Your task to perform on an android device: toggle location history Image 0: 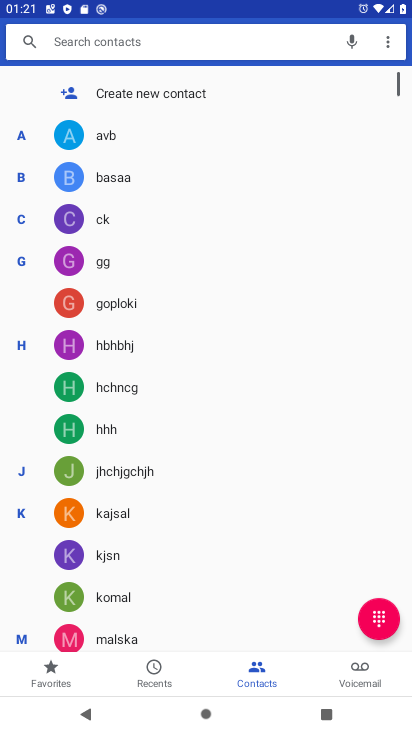
Step 0: press home button
Your task to perform on an android device: toggle location history Image 1: 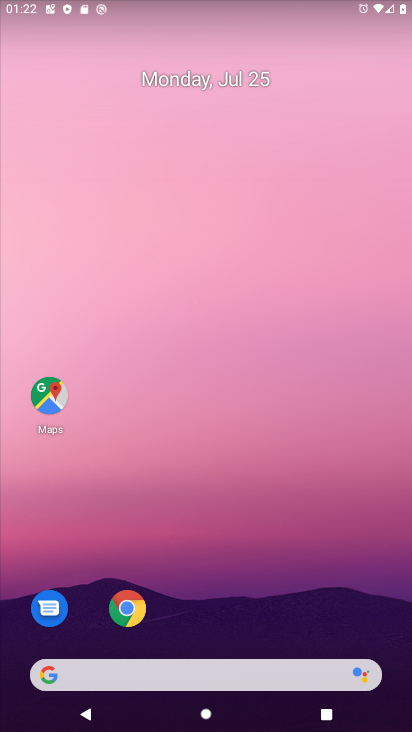
Step 1: drag from (221, 629) to (179, 9)
Your task to perform on an android device: toggle location history Image 2: 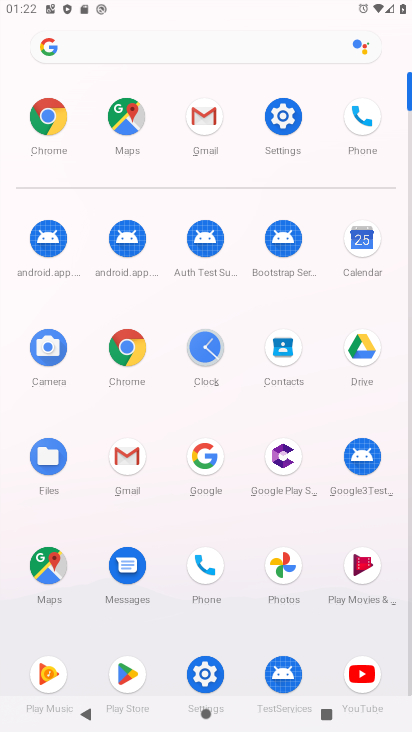
Step 2: click (264, 114)
Your task to perform on an android device: toggle location history Image 3: 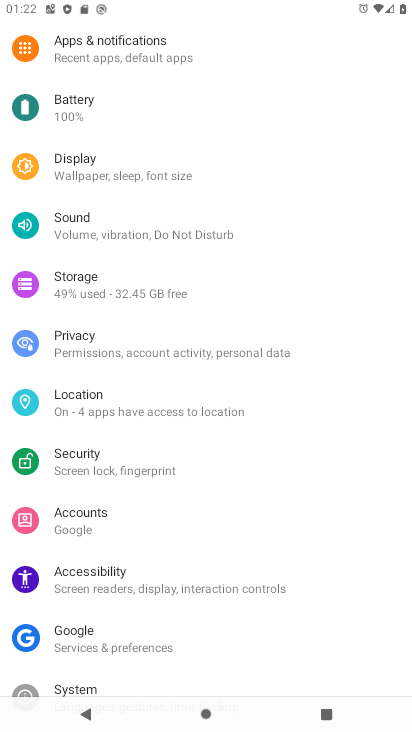
Step 3: click (92, 402)
Your task to perform on an android device: toggle location history Image 4: 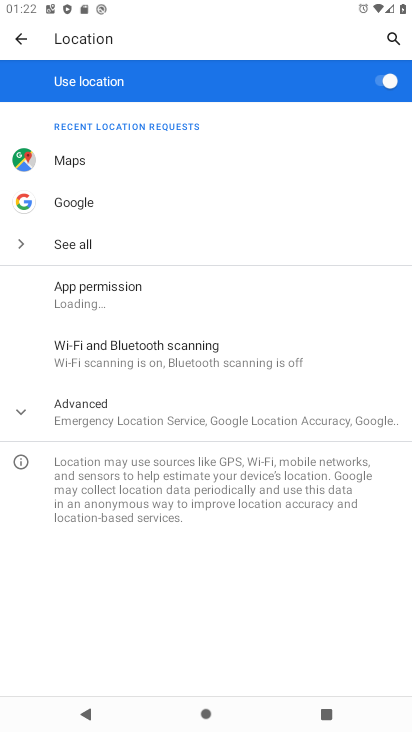
Step 4: click (100, 421)
Your task to perform on an android device: toggle location history Image 5: 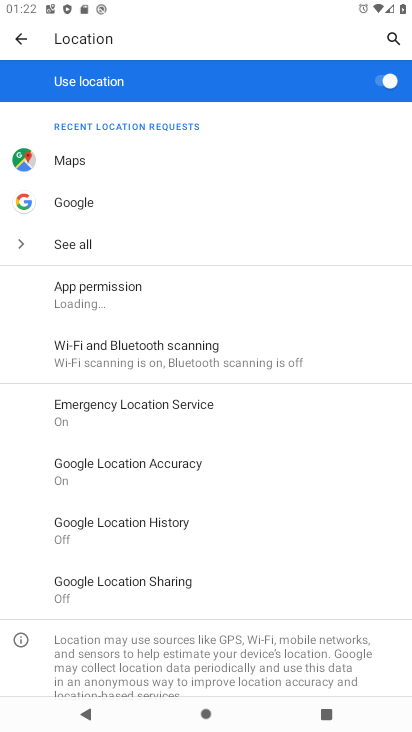
Step 5: click (134, 513)
Your task to perform on an android device: toggle location history Image 6: 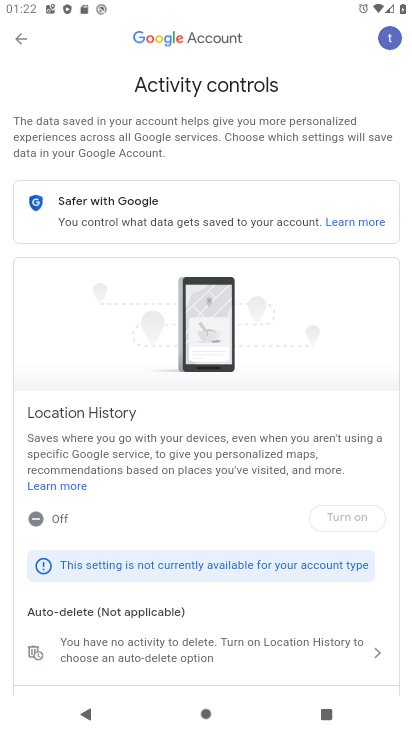
Step 6: drag from (300, 473) to (260, 39)
Your task to perform on an android device: toggle location history Image 7: 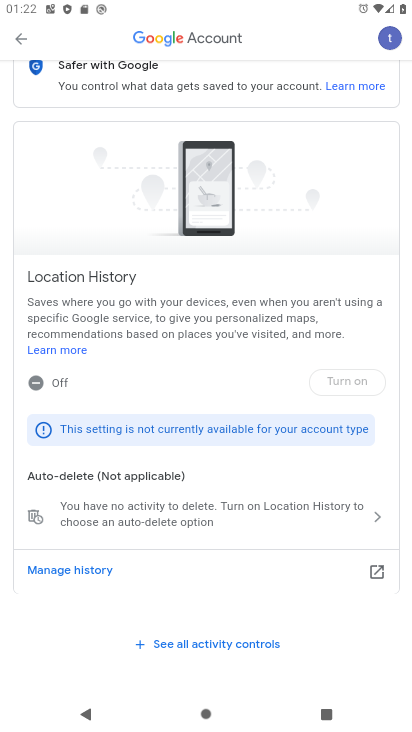
Step 7: click (129, 433)
Your task to perform on an android device: toggle location history Image 8: 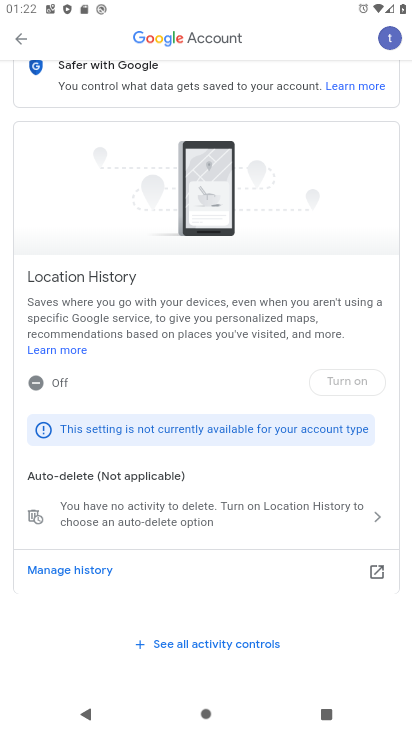
Step 8: task complete